Your task to perform on an android device: Go to Maps Image 0: 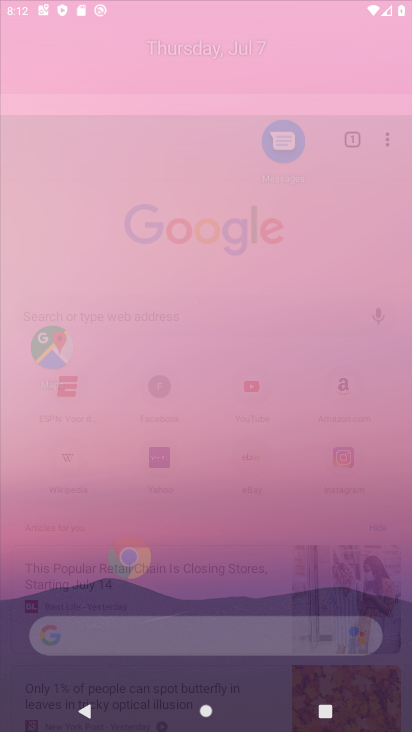
Step 0: click (355, 99)
Your task to perform on an android device: Go to Maps Image 1: 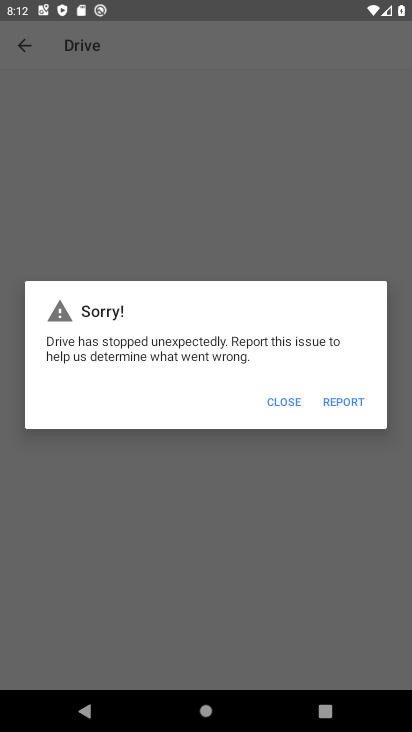
Step 1: press home button
Your task to perform on an android device: Go to Maps Image 2: 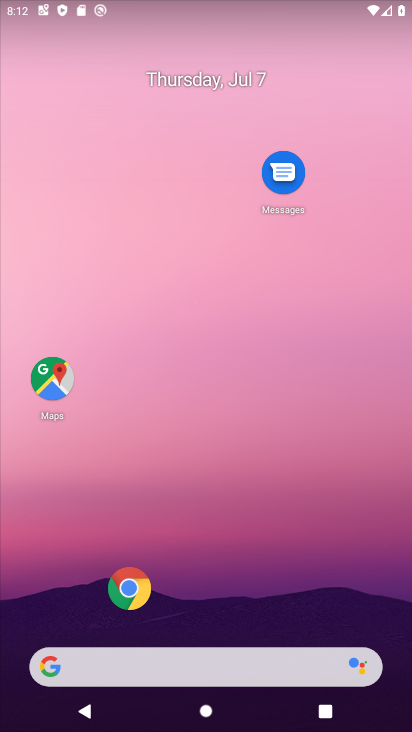
Step 2: click (62, 377)
Your task to perform on an android device: Go to Maps Image 3: 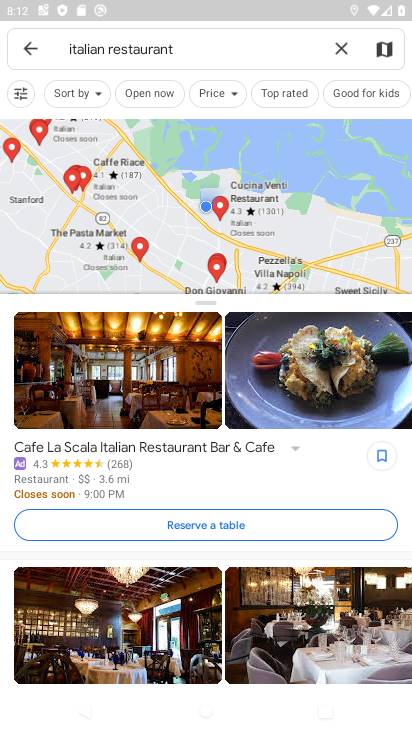
Step 3: click (29, 42)
Your task to perform on an android device: Go to Maps Image 4: 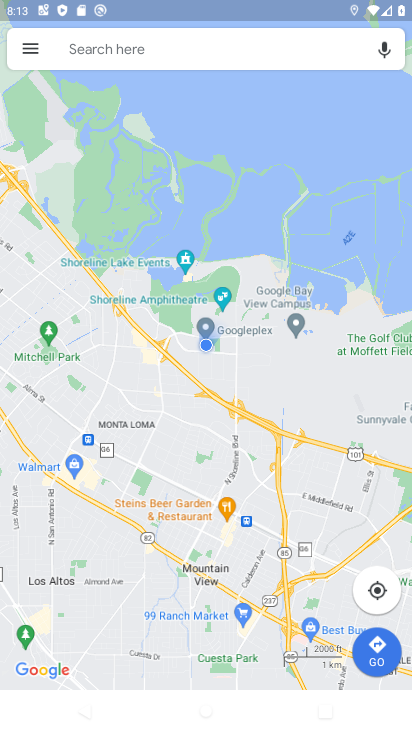
Step 4: click (31, 43)
Your task to perform on an android device: Go to Maps Image 5: 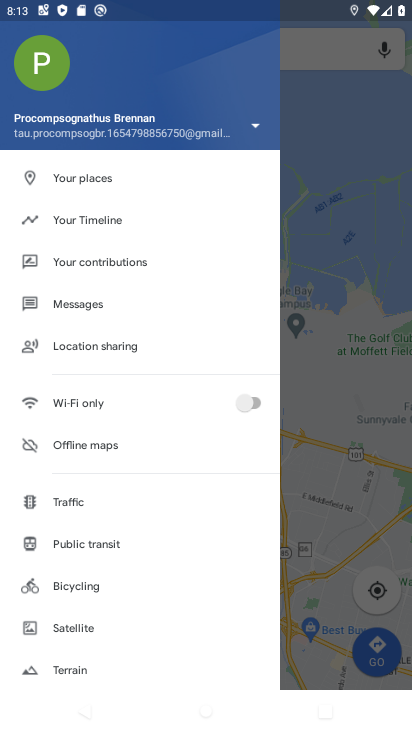
Step 5: click (340, 134)
Your task to perform on an android device: Go to Maps Image 6: 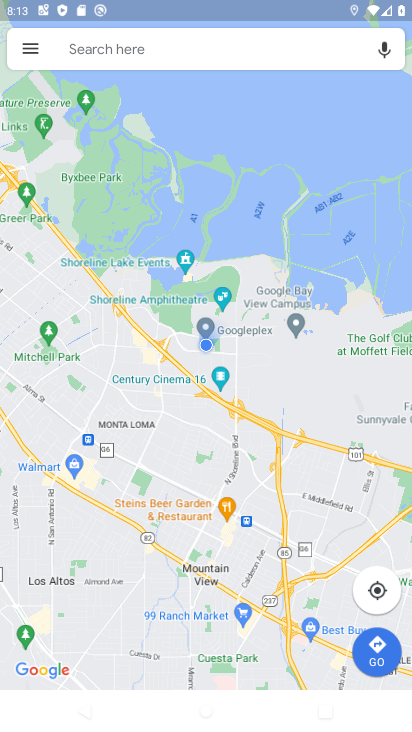
Step 6: task complete